Your task to perform on an android device: Open Youtube and go to "Your channel" Image 0: 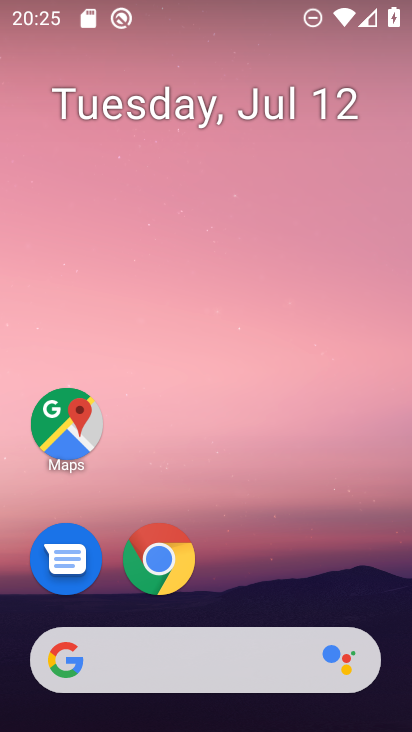
Step 0: drag from (370, 588) to (362, 151)
Your task to perform on an android device: Open Youtube and go to "Your channel" Image 1: 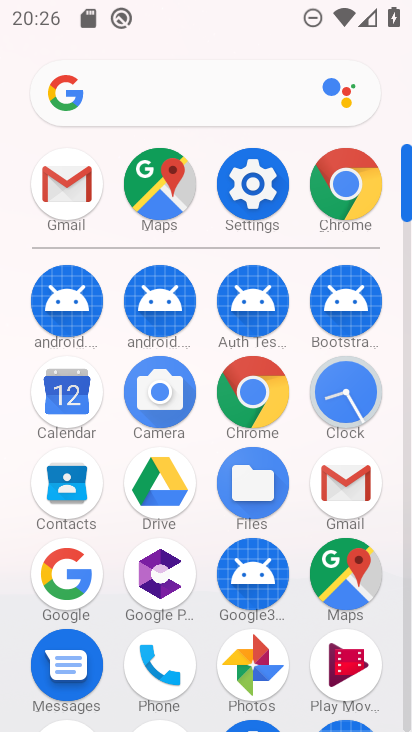
Step 1: drag from (386, 467) to (391, 243)
Your task to perform on an android device: Open Youtube and go to "Your channel" Image 2: 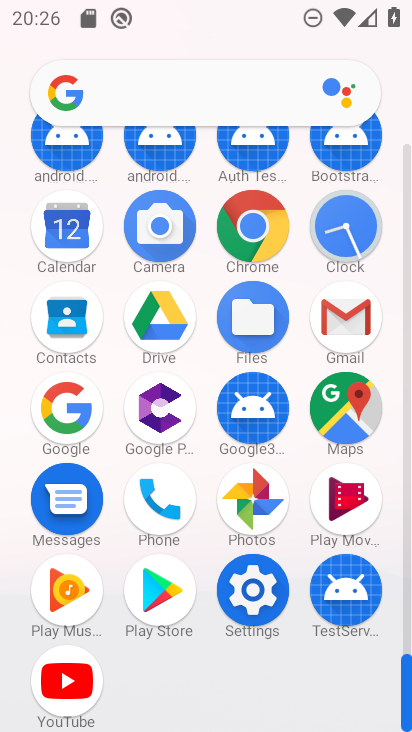
Step 2: click (68, 691)
Your task to perform on an android device: Open Youtube and go to "Your channel" Image 3: 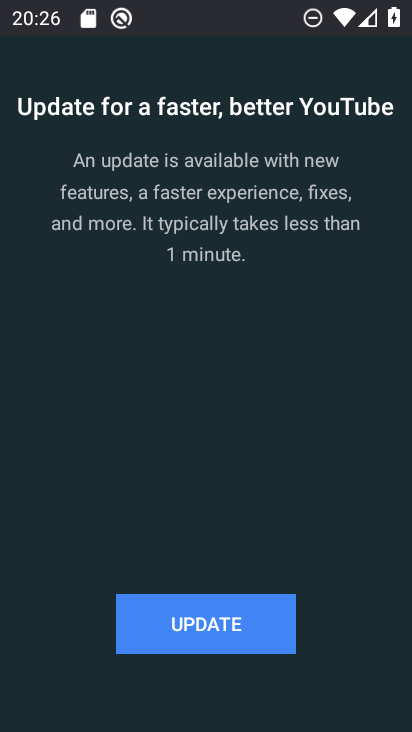
Step 3: click (201, 631)
Your task to perform on an android device: Open Youtube and go to "Your channel" Image 4: 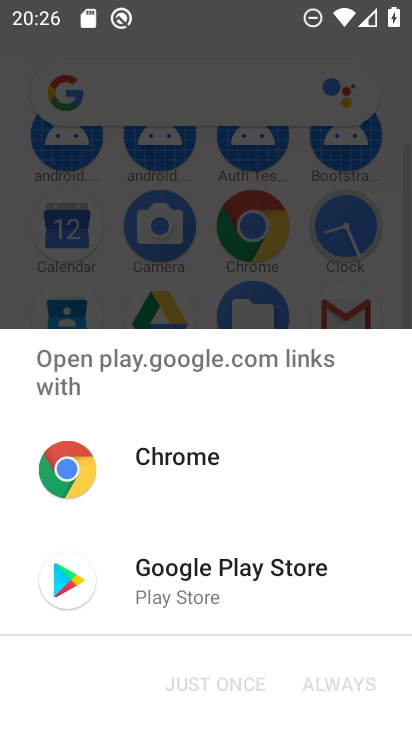
Step 4: click (193, 573)
Your task to perform on an android device: Open Youtube and go to "Your channel" Image 5: 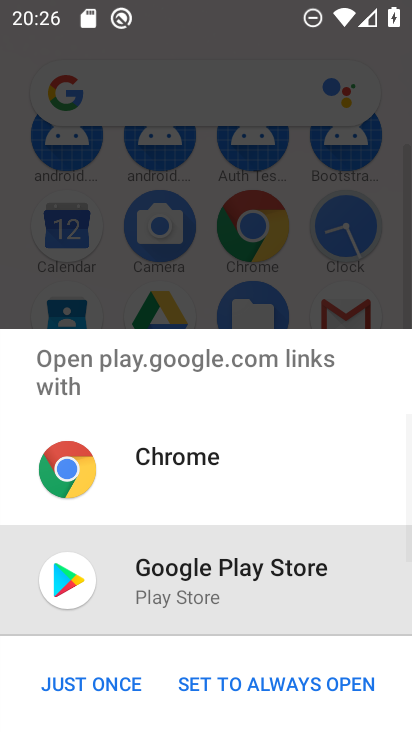
Step 5: click (123, 678)
Your task to perform on an android device: Open Youtube and go to "Your channel" Image 6: 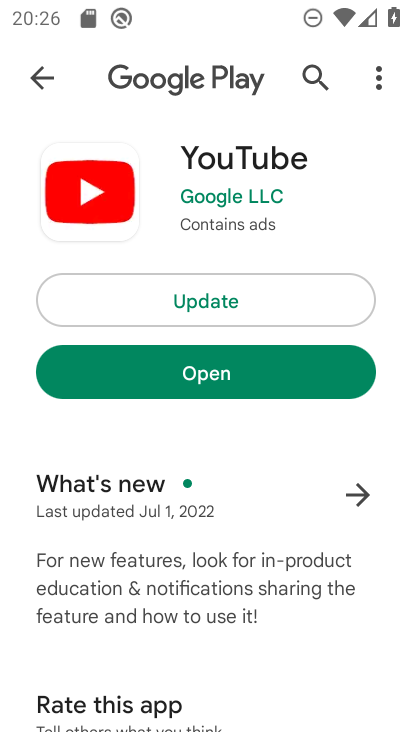
Step 6: click (234, 304)
Your task to perform on an android device: Open Youtube and go to "Your channel" Image 7: 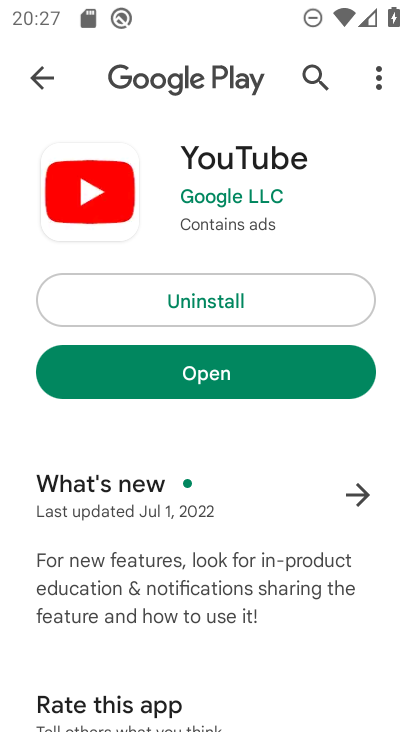
Step 7: click (315, 383)
Your task to perform on an android device: Open Youtube and go to "Your channel" Image 8: 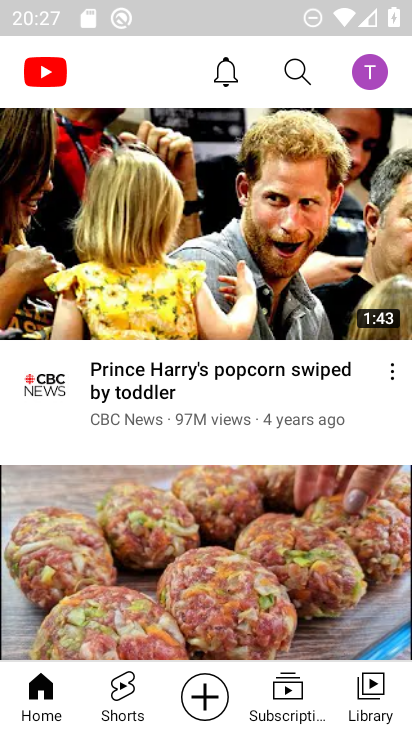
Step 8: click (372, 68)
Your task to perform on an android device: Open Youtube and go to "Your channel" Image 9: 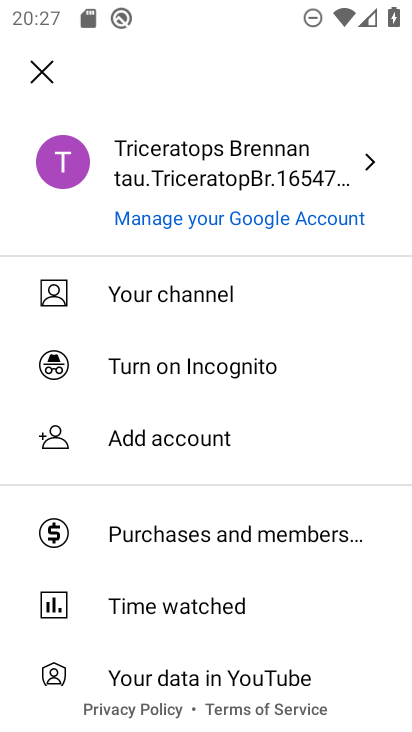
Step 9: click (185, 286)
Your task to perform on an android device: Open Youtube and go to "Your channel" Image 10: 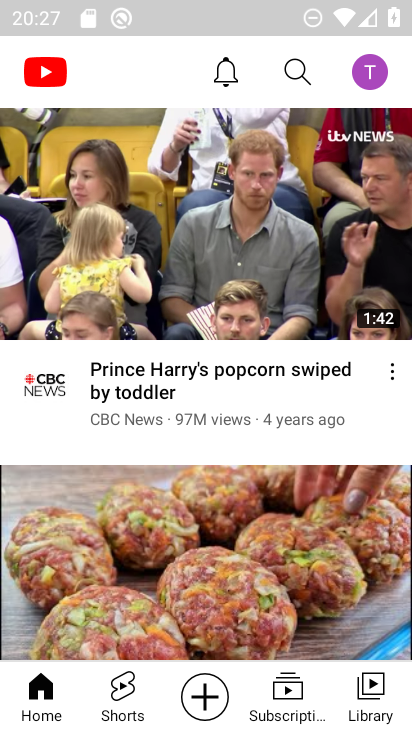
Step 10: task complete